Your task to perform on an android device: Show me productivity apps on the Play Store Image 0: 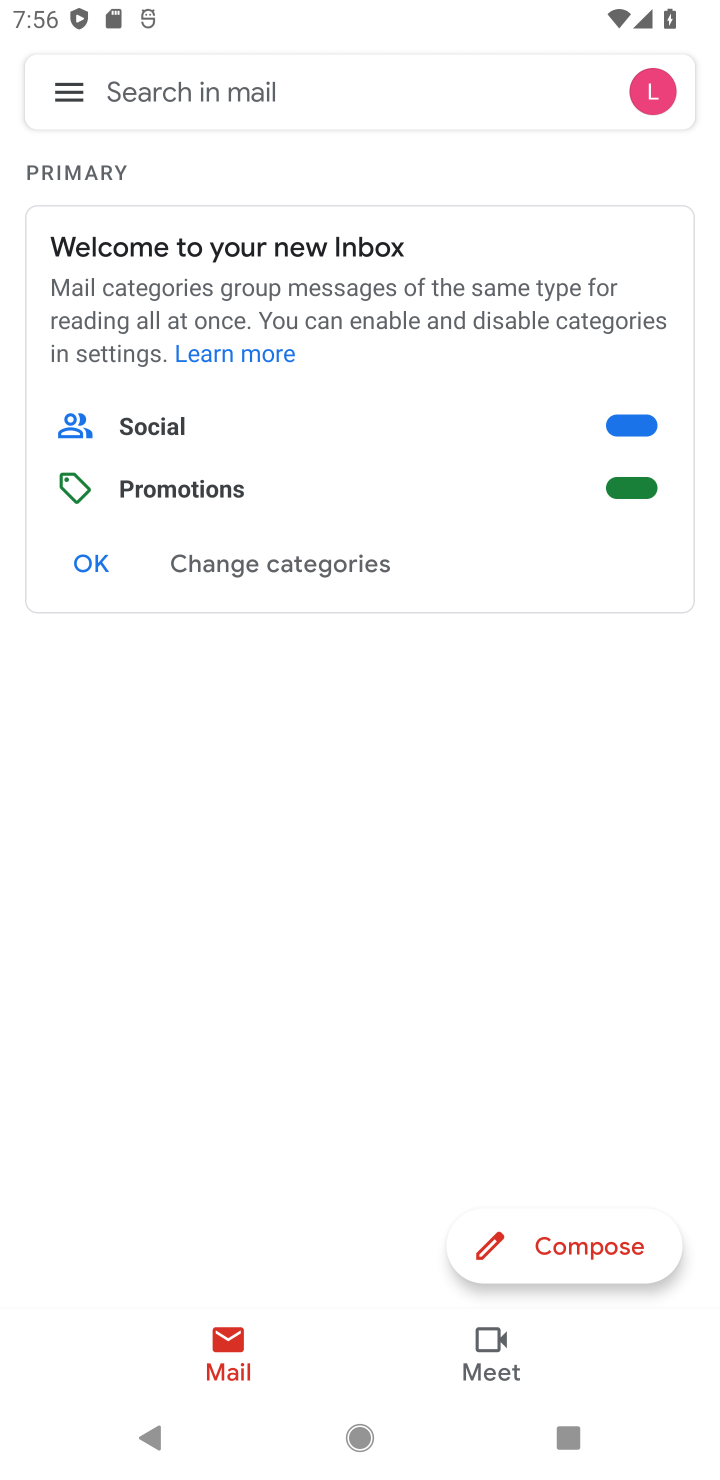
Step 0: task complete